Your task to perform on an android device: Go to Amazon Image 0: 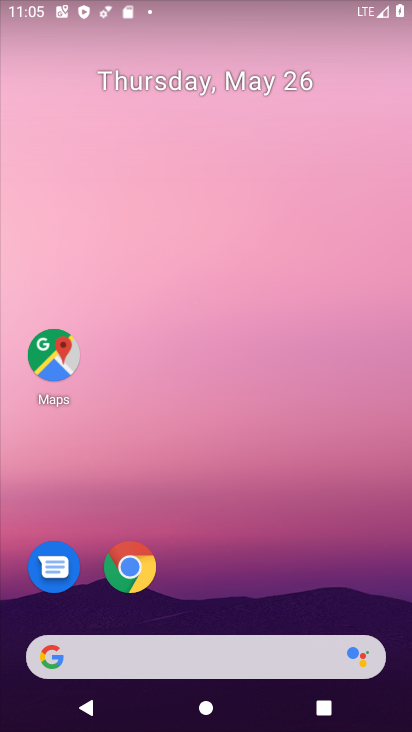
Step 0: click (133, 566)
Your task to perform on an android device: Go to Amazon Image 1: 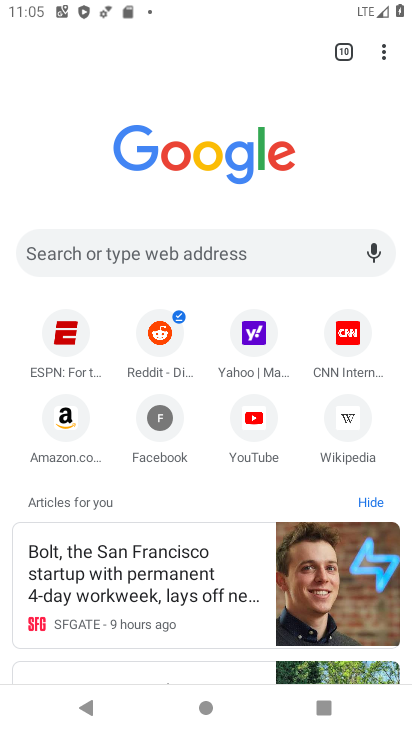
Step 1: click (65, 410)
Your task to perform on an android device: Go to Amazon Image 2: 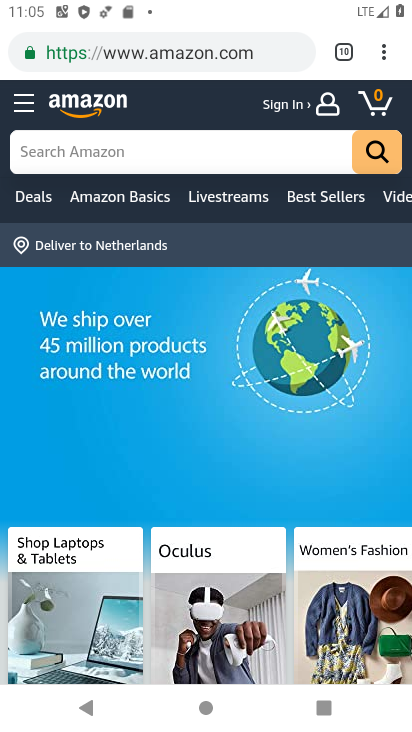
Step 2: task complete